Your task to perform on an android device: Open ESPN.com Image 0: 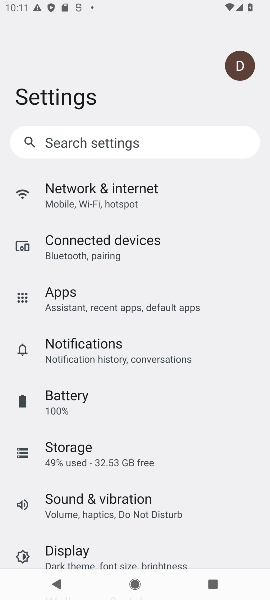
Step 0: press home button
Your task to perform on an android device: Open ESPN.com Image 1: 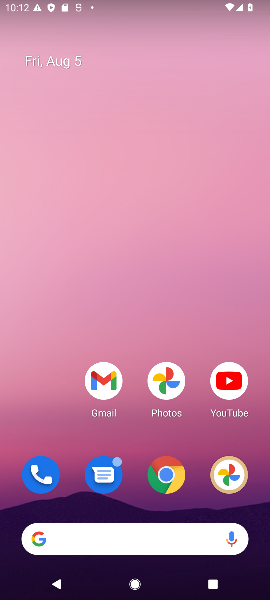
Step 1: click (168, 484)
Your task to perform on an android device: Open ESPN.com Image 2: 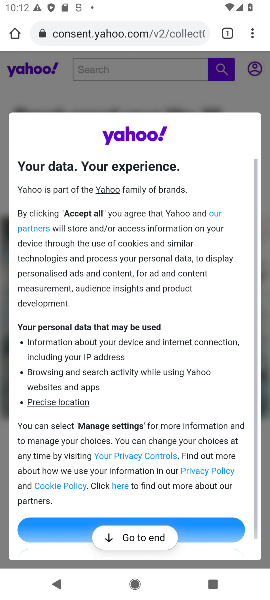
Step 2: click (77, 38)
Your task to perform on an android device: Open ESPN.com Image 3: 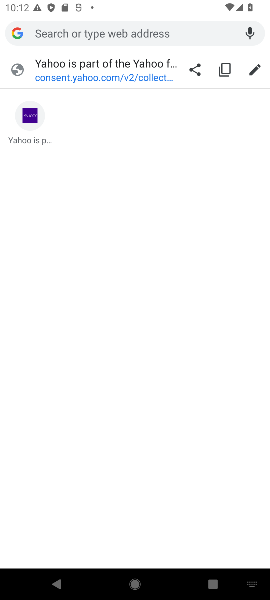
Step 3: type "ESPN.com"
Your task to perform on an android device: Open ESPN.com Image 4: 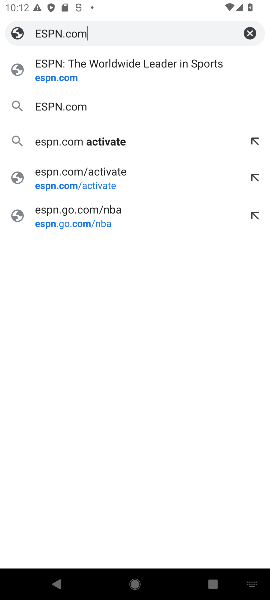
Step 4: click (80, 74)
Your task to perform on an android device: Open ESPN.com Image 5: 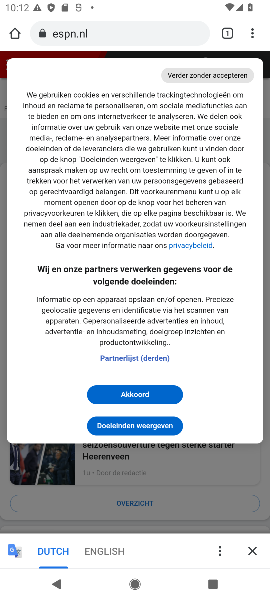
Step 5: task complete